Your task to perform on an android device: turn on priority inbox in the gmail app Image 0: 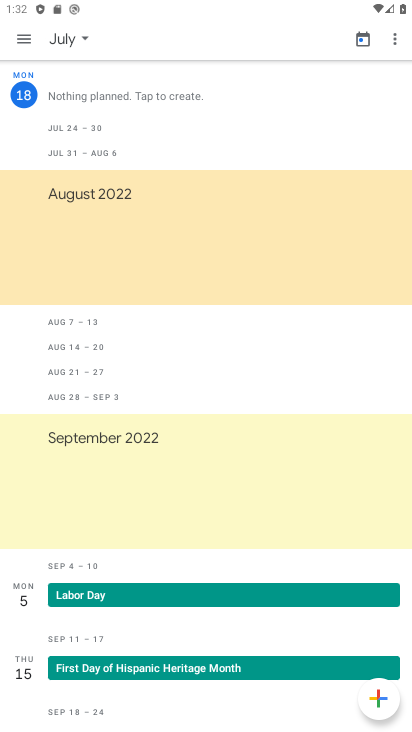
Step 0: press home button
Your task to perform on an android device: turn on priority inbox in the gmail app Image 1: 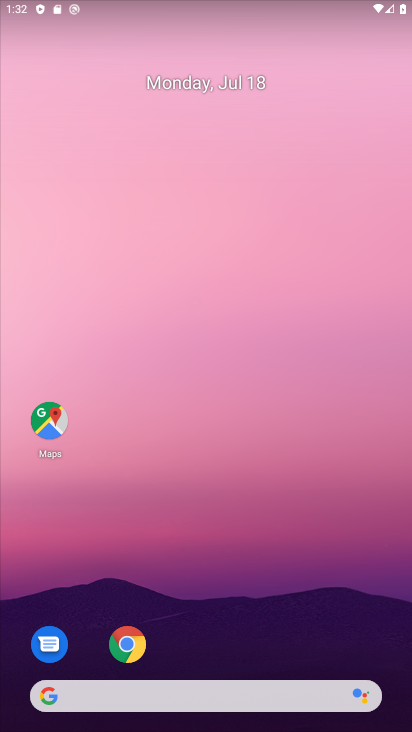
Step 1: drag from (297, 651) to (134, 0)
Your task to perform on an android device: turn on priority inbox in the gmail app Image 2: 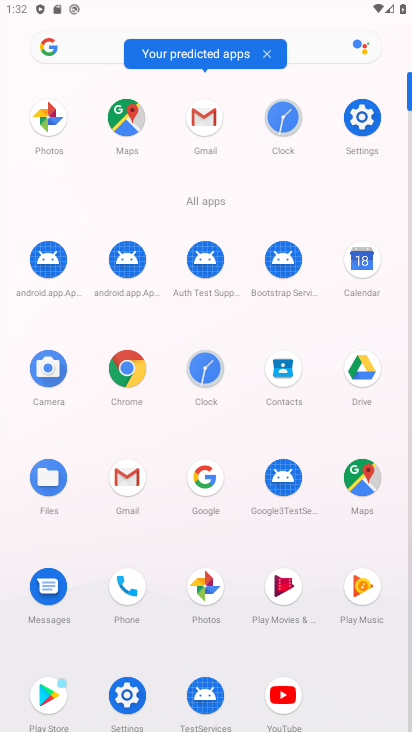
Step 2: click (117, 471)
Your task to perform on an android device: turn on priority inbox in the gmail app Image 3: 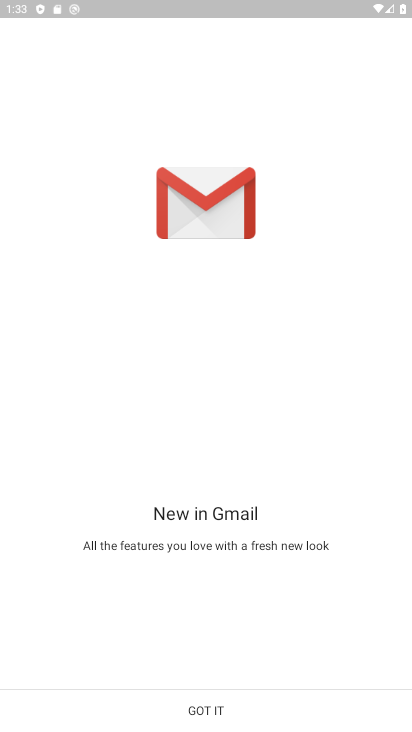
Step 3: click (229, 700)
Your task to perform on an android device: turn on priority inbox in the gmail app Image 4: 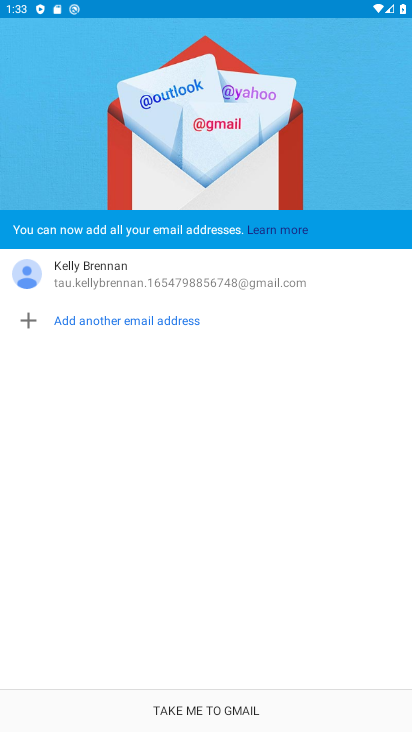
Step 4: click (211, 702)
Your task to perform on an android device: turn on priority inbox in the gmail app Image 5: 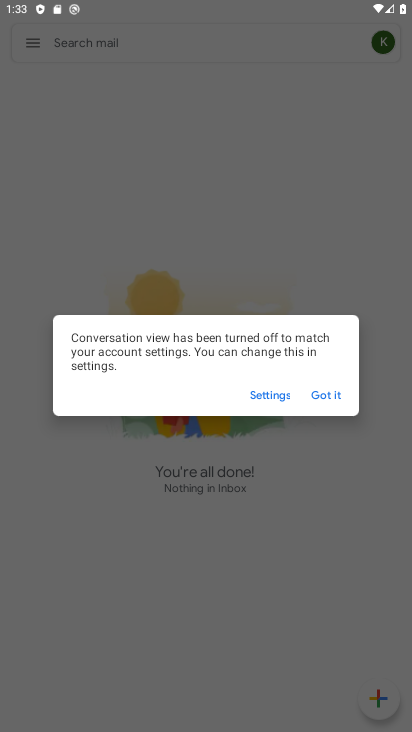
Step 5: click (319, 404)
Your task to perform on an android device: turn on priority inbox in the gmail app Image 6: 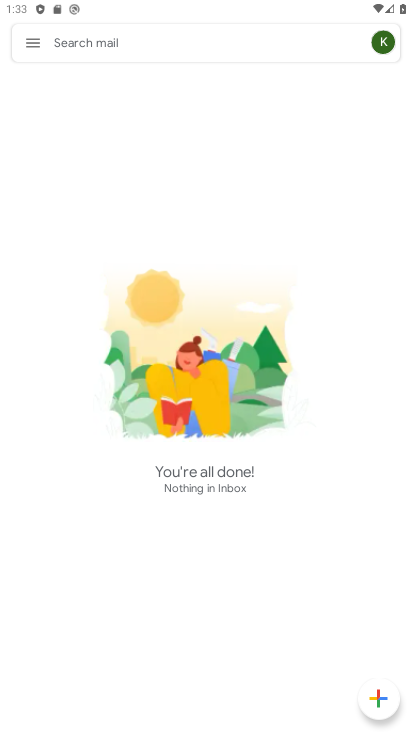
Step 6: click (27, 38)
Your task to perform on an android device: turn on priority inbox in the gmail app Image 7: 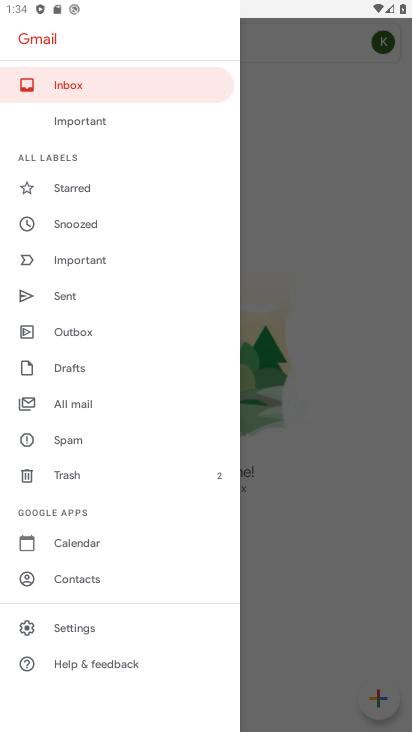
Step 7: click (164, 627)
Your task to perform on an android device: turn on priority inbox in the gmail app Image 8: 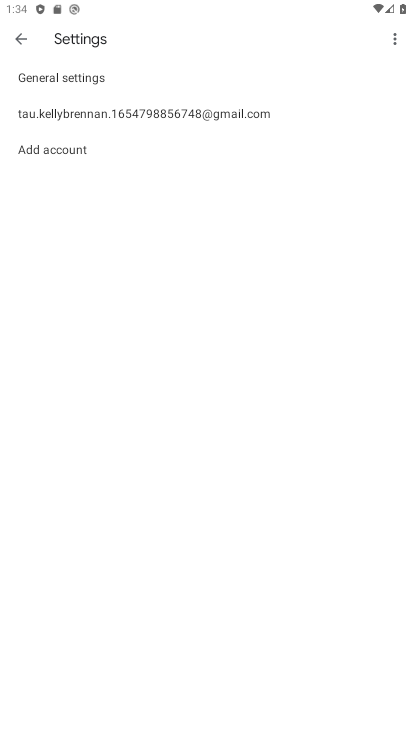
Step 8: click (108, 112)
Your task to perform on an android device: turn on priority inbox in the gmail app Image 9: 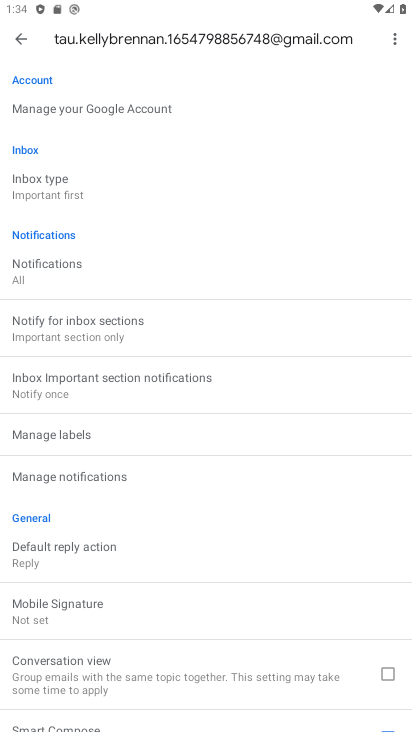
Step 9: click (127, 193)
Your task to perform on an android device: turn on priority inbox in the gmail app Image 10: 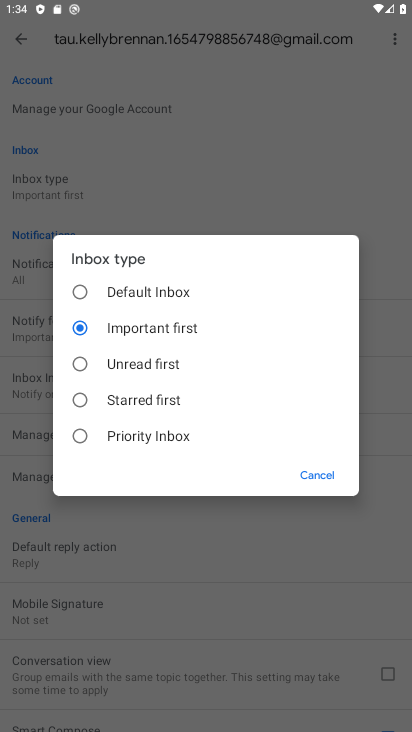
Step 10: click (180, 432)
Your task to perform on an android device: turn on priority inbox in the gmail app Image 11: 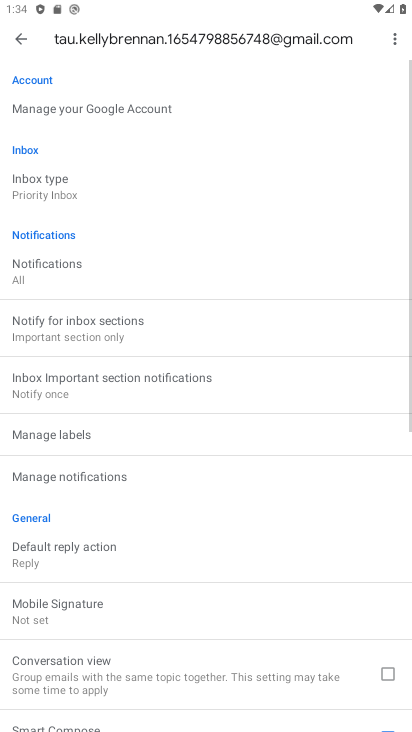
Step 11: task complete